Your task to perform on an android device: Search for seafood restaurants on Google Maps Image 0: 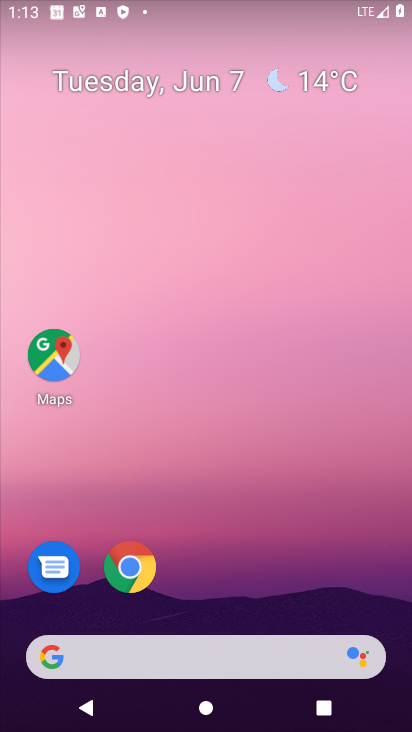
Step 0: drag from (233, 626) to (252, 2)
Your task to perform on an android device: Search for seafood restaurants on Google Maps Image 1: 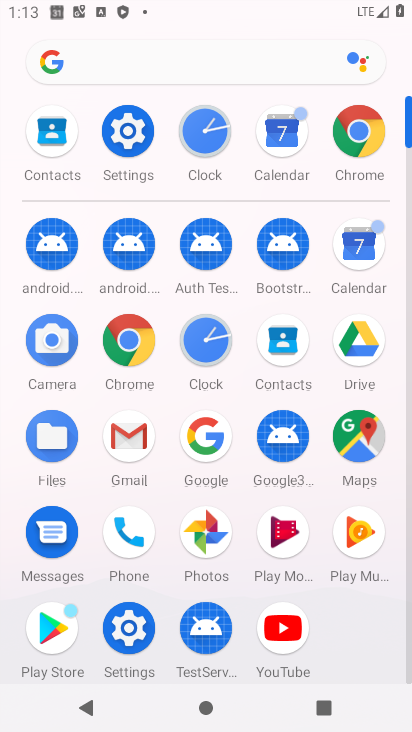
Step 1: click (367, 416)
Your task to perform on an android device: Search for seafood restaurants on Google Maps Image 2: 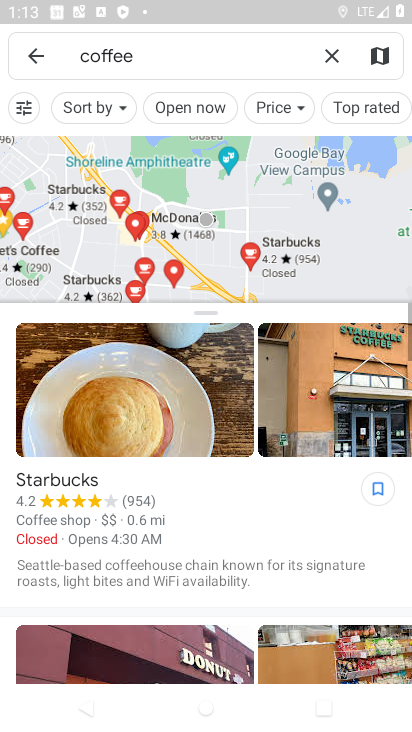
Step 2: press back button
Your task to perform on an android device: Search for seafood restaurants on Google Maps Image 3: 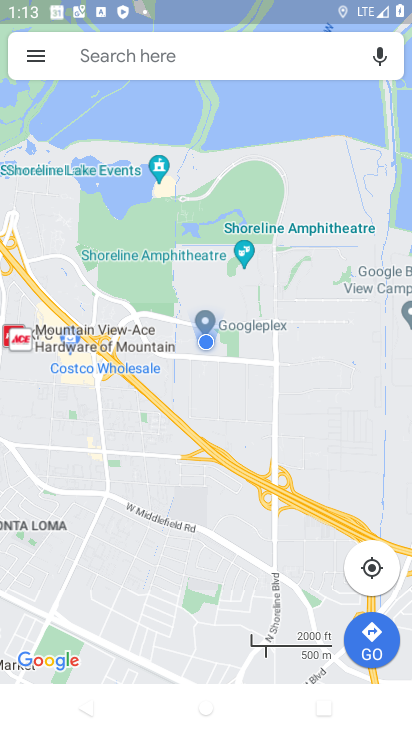
Step 3: click (218, 58)
Your task to perform on an android device: Search for seafood restaurants on Google Maps Image 4: 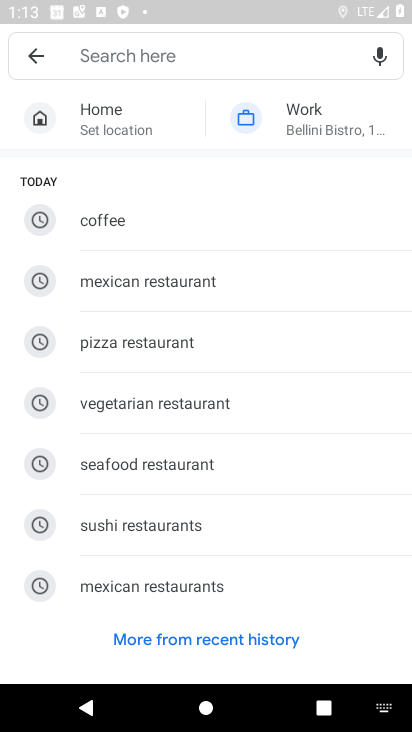
Step 4: click (161, 470)
Your task to perform on an android device: Search for seafood restaurants on Google Maps Image 5: 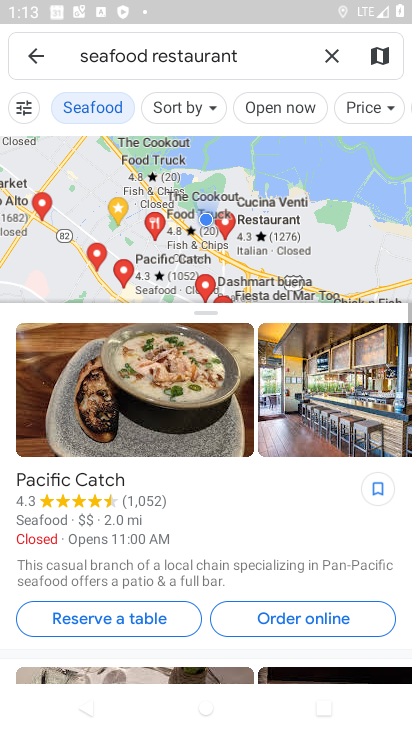
Step 5: task complete